Your task to perform on an android device: toggle wifi Image 0: 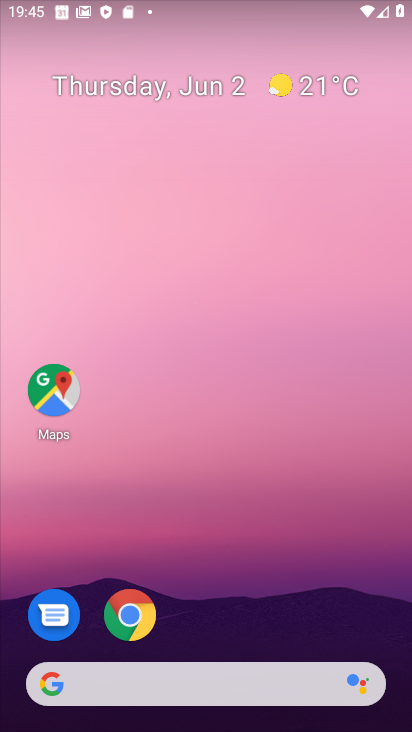
Step 0: drag from (273, 599) to (245, 34)
Your task to perform on an android device: toggle wifi Image 1: 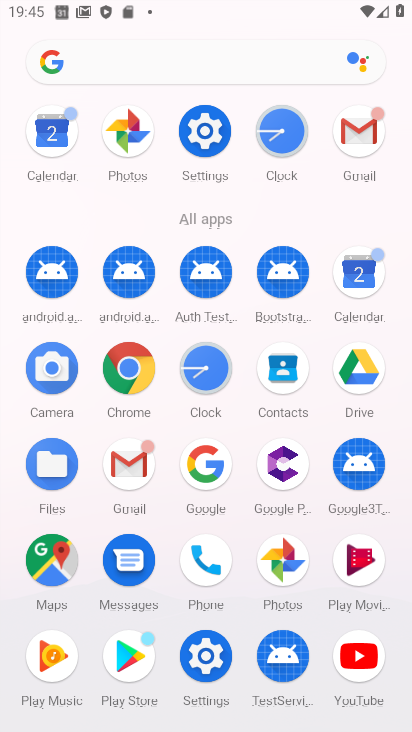
Step 1: click (203, 175)
Your task to perform on an android device: toggle wifi Image 2: 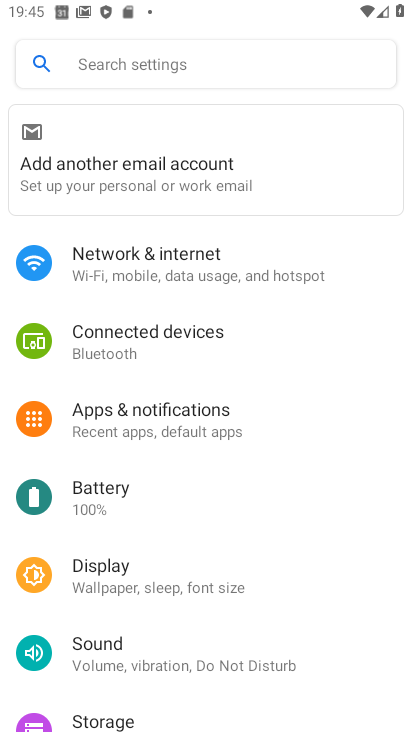
Step 2: click (233, 247)
Your task to perform on an android device: toggle wifi Image 3: 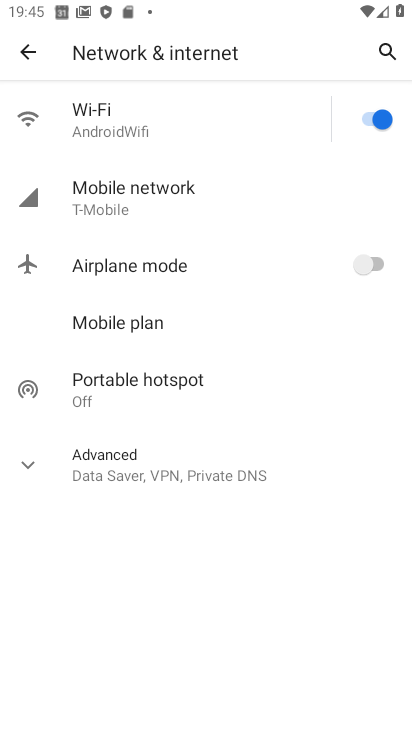
Step 3: task complete